Your task to perform on an android device: set the stopwatch Image 0: 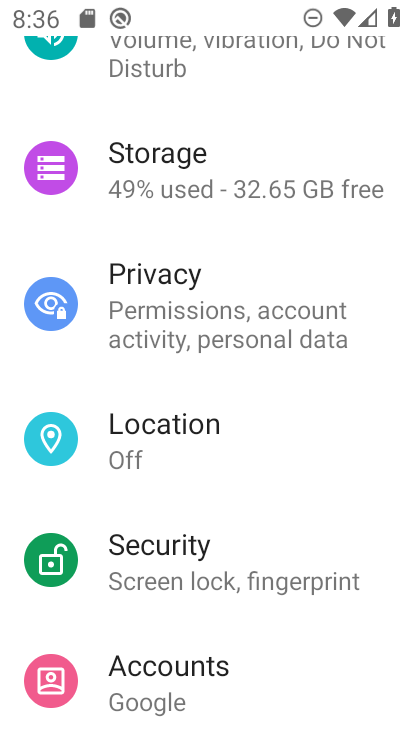
Step 0: press home button
Your task to perform on an android device: set the stopwatch Image 1: 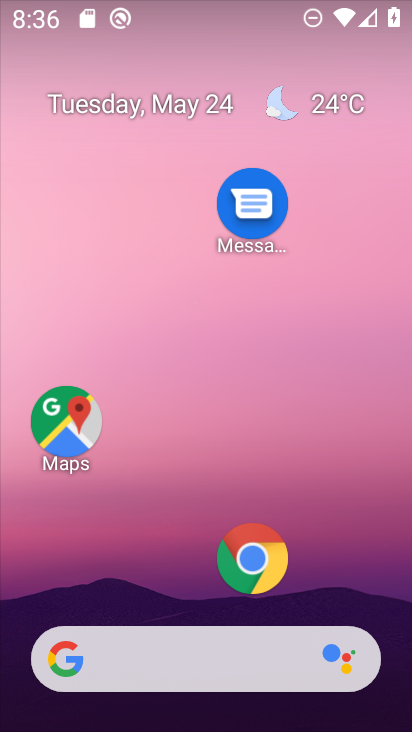
Step 1: drag from (192, 596) to (192, 219)
Your task to perform on an android device: set the stopwatch Image 2: 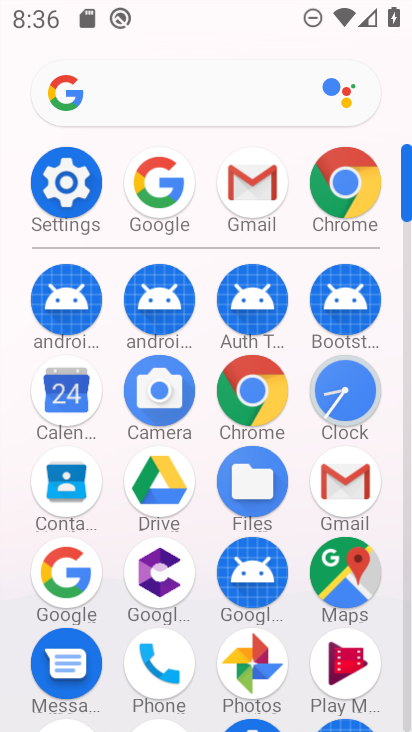
Step 2: click (350, 384)
Your task to perform on an android device: set the stopwatch Image 3: 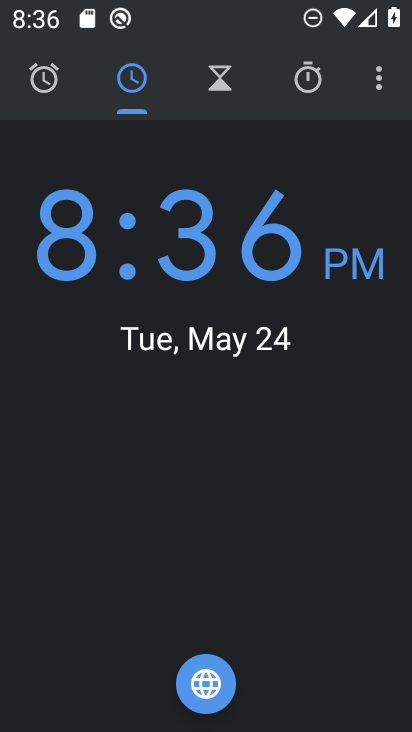
Step 3: click (312, 80)
Your task to perform on an android device: set the stopwatch Image 4: 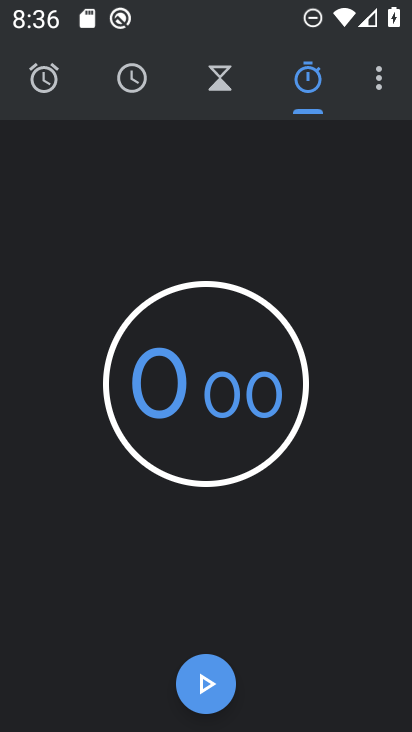
Step 4: click (207, 678)
Your task to perform on an android device: set the stopwatch Image 5: 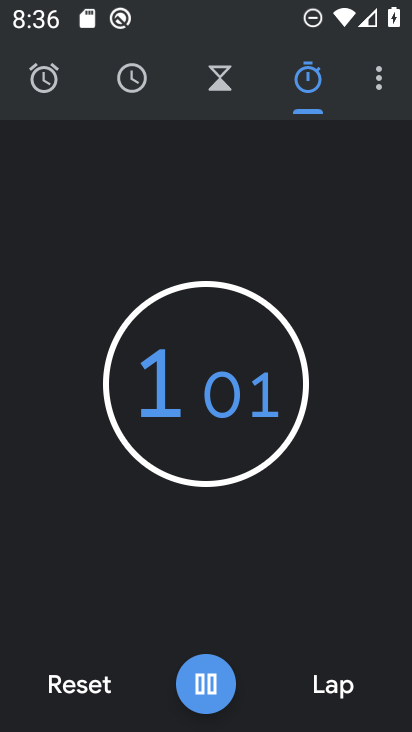
Step 5: task complete